Your task to perform on an android device: Go to Android settings Image 0: 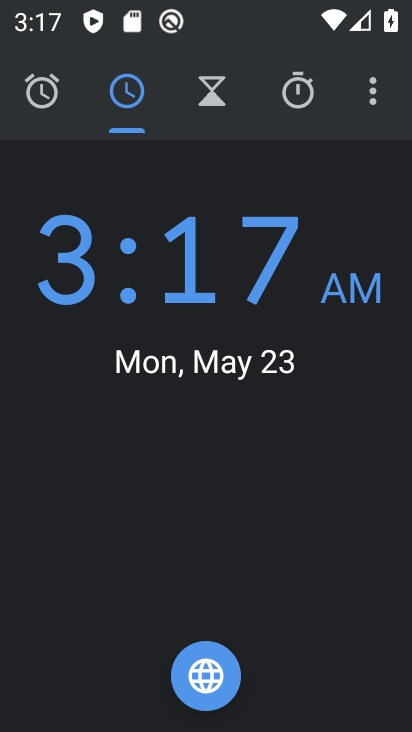
Step 0: press home button
Your task to perform on an android device: Go to Android settings Image 1: 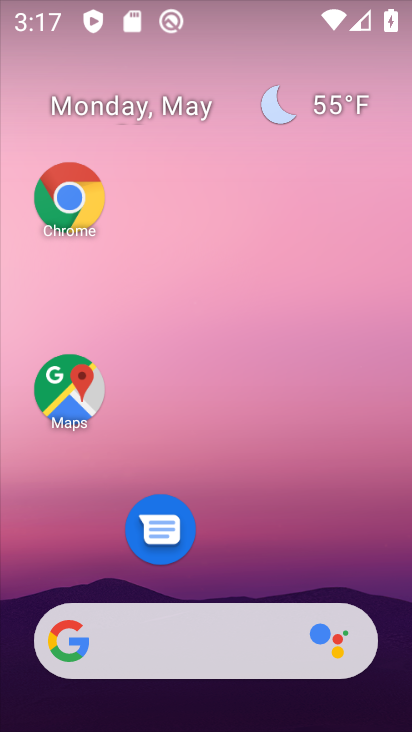
Step 1: drag from (302, 573) to (255, 311)
Your task to perform on an android device: Go to Android settings Image 2: 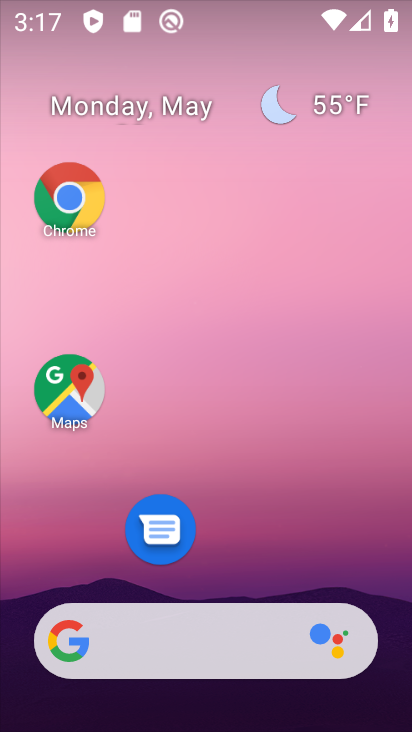
Step 2: drag from (310, 531) to (282, 184)
Your task to perform on an android device: Go to Android settings Image 3: 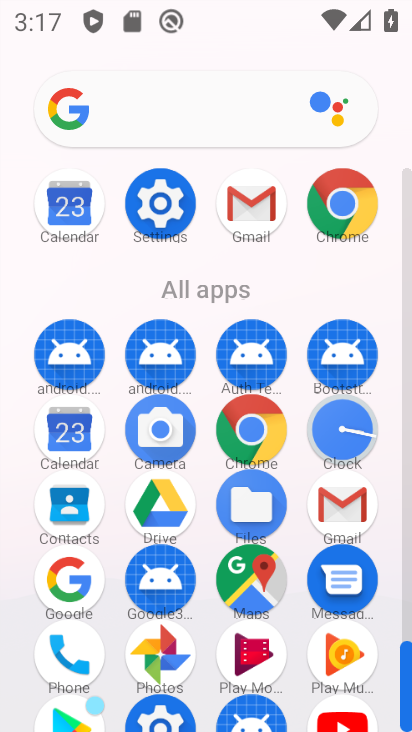
Step 3: click (164, 224)
Your task to perform on an android device: Go to Android settings Image 4: 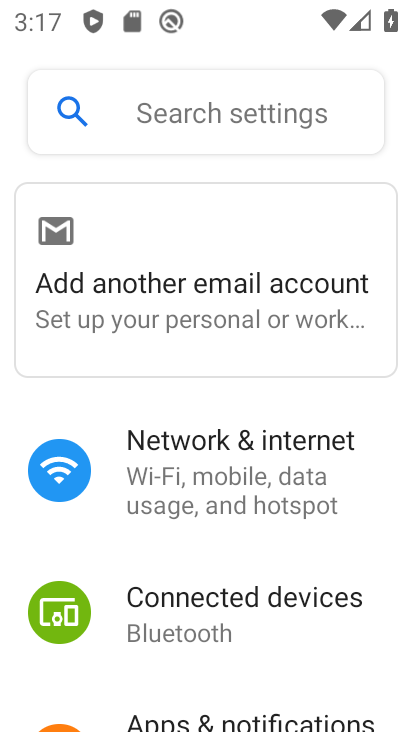
Step 4: drag from (168, 444) to (173, 297)
Your task to perform on an android device: Go to Android settings Image 5: 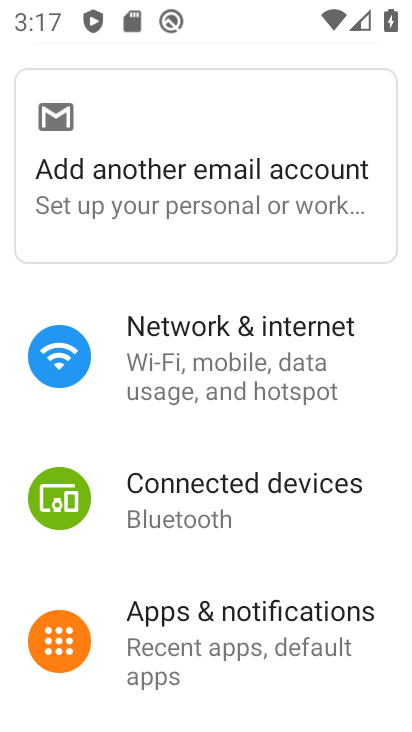
Step 5: drag from (114, 722) to (80, 370)
Your task to perform on an android device: Go to Android settings Image 6: 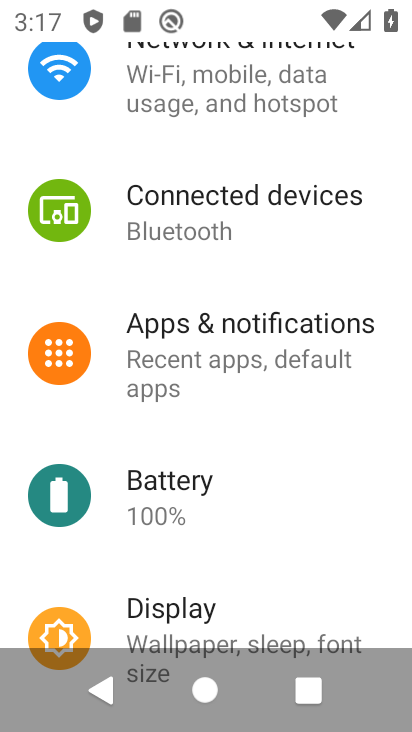
Step 6: drag from (237, 553) to (207, 216)
Your task to perform on an android device: Go to Android settings Image 7: 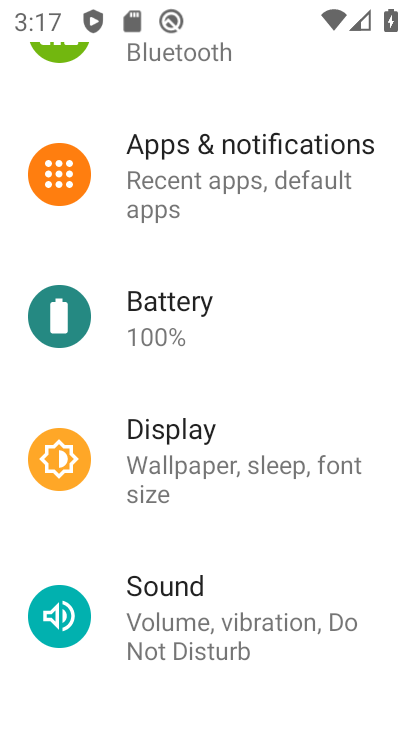
Step 7: drag from (197, 507) to (217, 119)
Your task to perform on an android device: Go to Android settings Image 8: 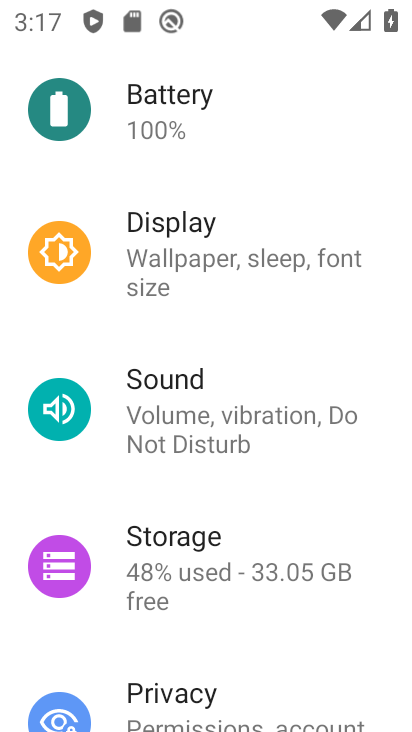
Step 8: drag from (194, 483) to (171, 251)
Your task to perform on an android device: Go to Android settings Image 9: 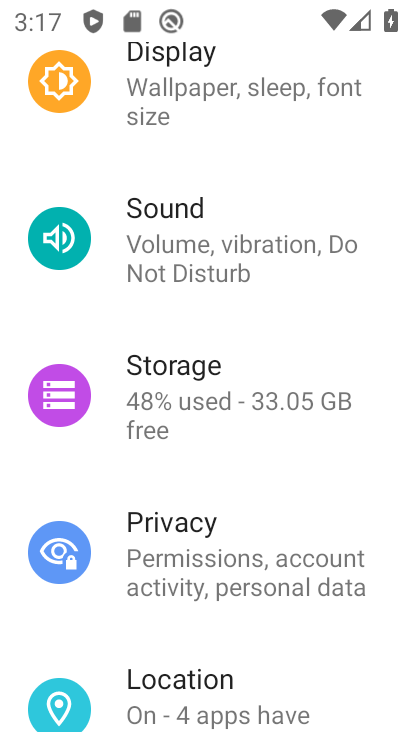
Step 9: drag from (174, 542) to (112, 222)
Your task to perform on an android device: Go to Android settings Image 10: 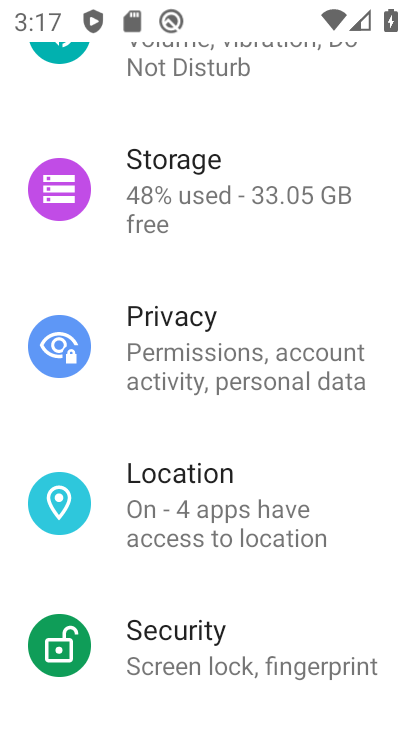
Step 10: drag from (130, 571) to (128, 124)
Your task to perform on an android device: Go to Android settings Image 11: 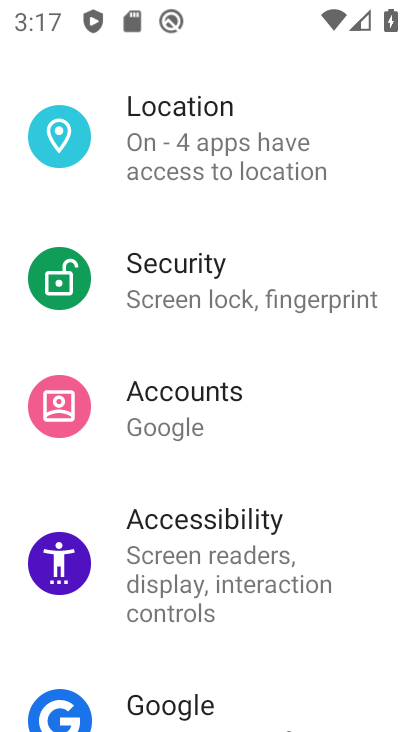
Step 11: drag from (273, 554) to (288, 186)
Your task to perform on an android device: Go to Android settings Image 12: 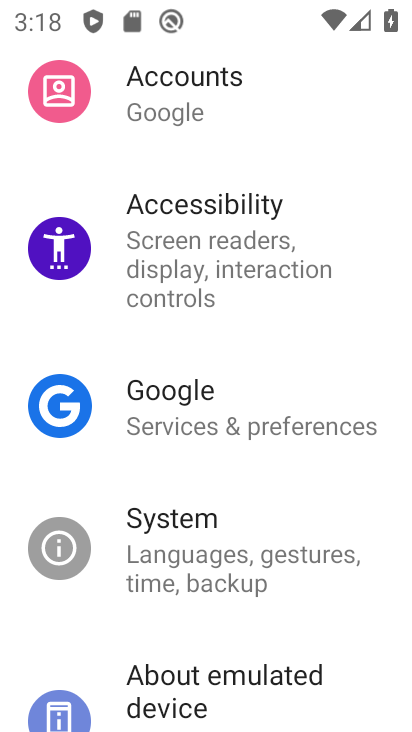
Step 12: drag from (279, 518) to (290, 153)
Your task to perform on an android device: Go to Android settings Image 13: 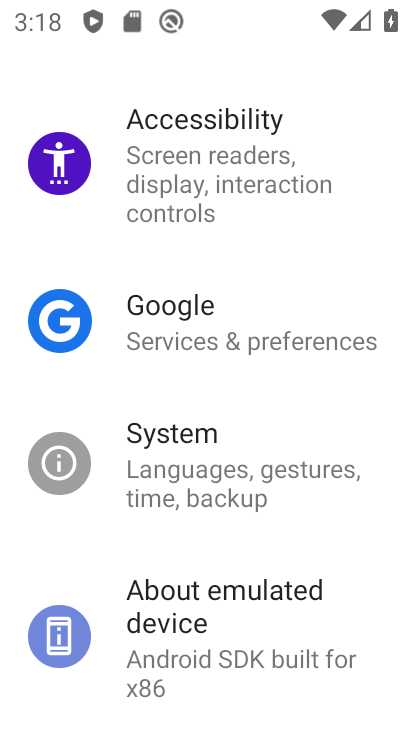
Step 13: drag from (183, 482) to (197, 231)
Your task to perform on an android device: Go to Android settings Image 14: 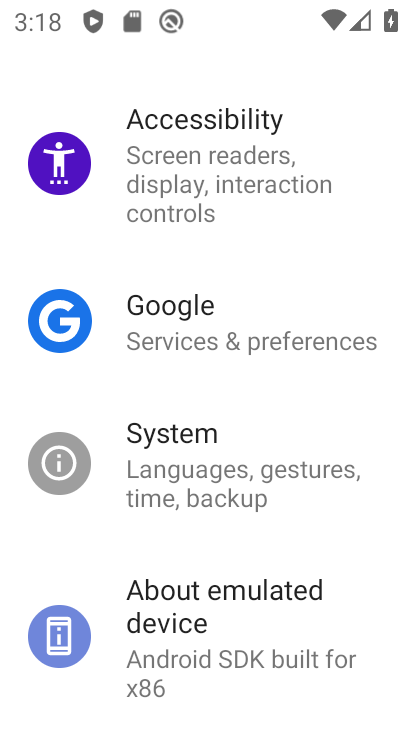
Step 14: drag from (167, 591) to (158, 438)
Your task to perform on an android device: Go to Android settings Image 15: 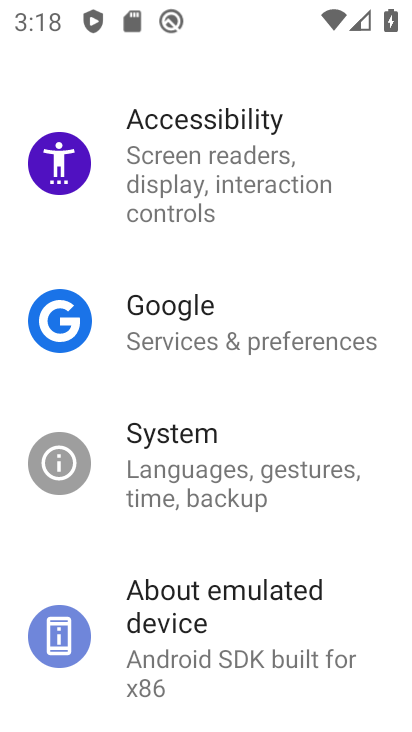
Step 15: click (199, 625)
Your task to perform on an android device: Go to Android settings Image 16: 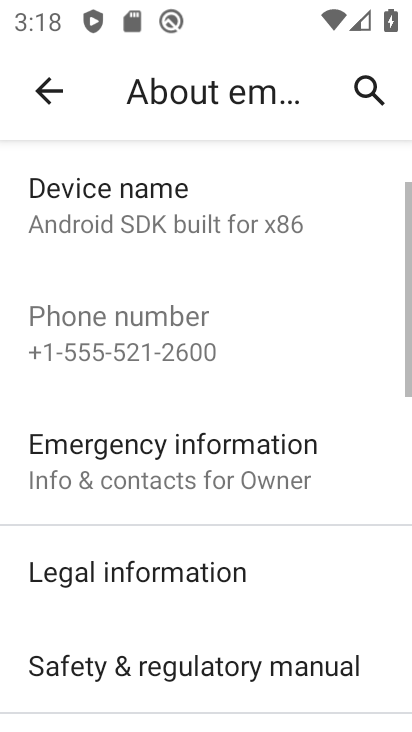
Step 16: drag from (198, 626) to (209, 327)
Your task to perform on an android device: Go to Android settings Image 17: 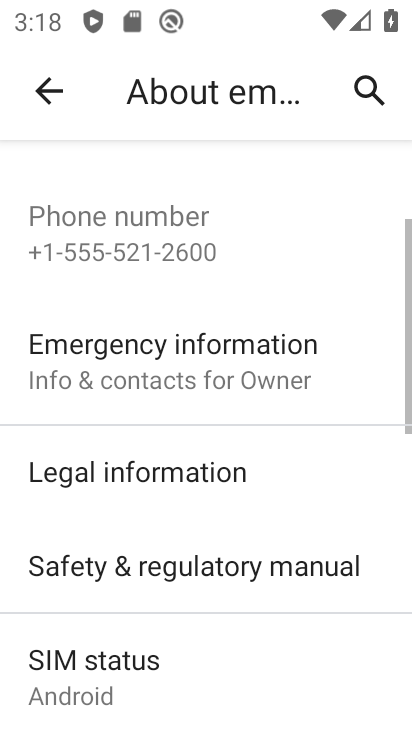
Step 17: drag from (158, 589) to (127, 397)
Your task to perform on an android device: Go to Android settings Image 18: 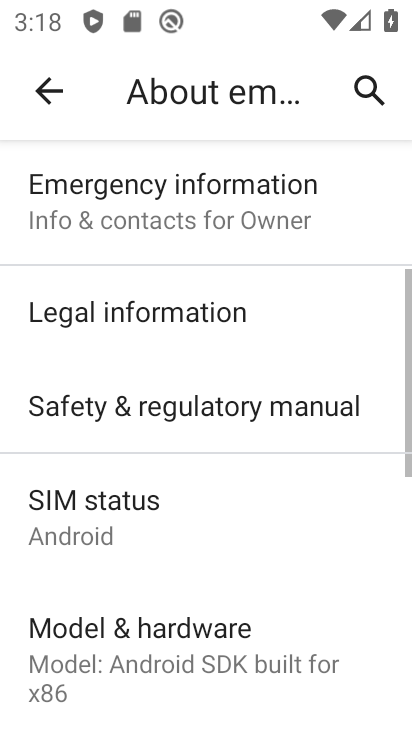
Step 18: drag from (161, 602) to (174, 355)
Your task to perform on an android device: Go to Android settings Image 19: 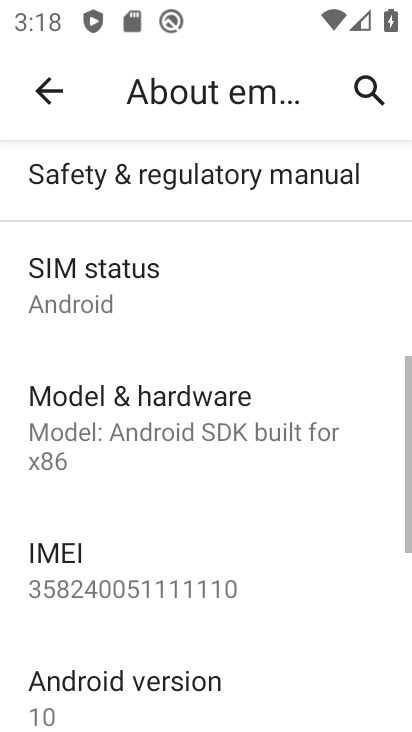
Step 19: drag from (175, 572) to (193, 291)
Your task to perform on an android device: Go to Android settings Image 20: 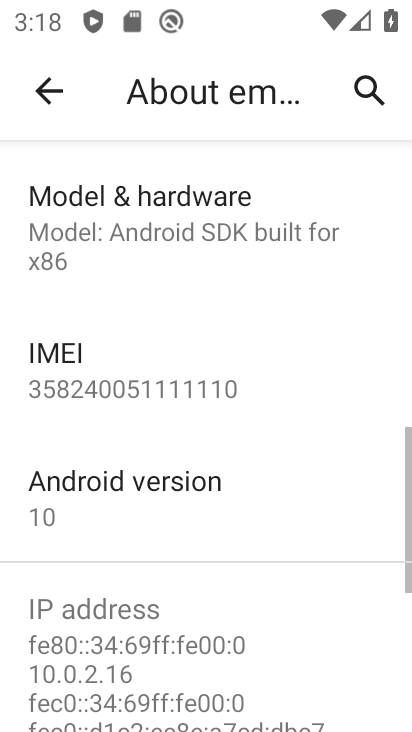
Step 20: click (202, 507)
Your task to perform on an android device: Go to Android settings Image 21: 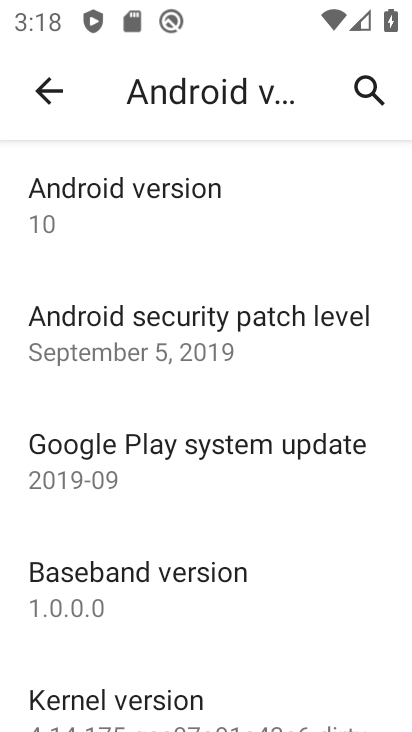
Step 21: click (235, 203)
Your task to perform on an android device: Go to Android settings Image 22: 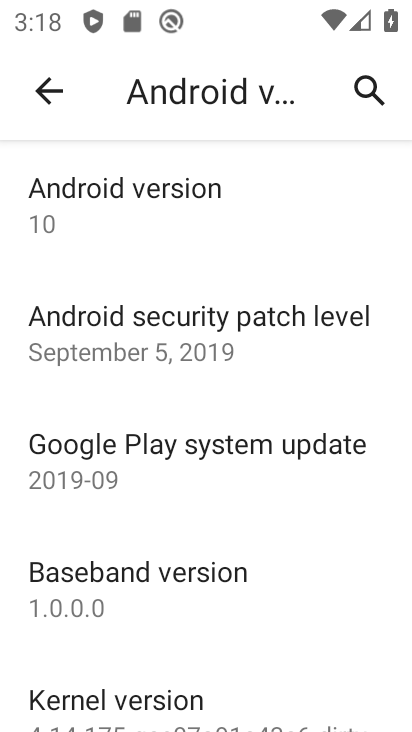
Step 22: task complete